Your task to perform on an android device: Go to notification settings Image 0: 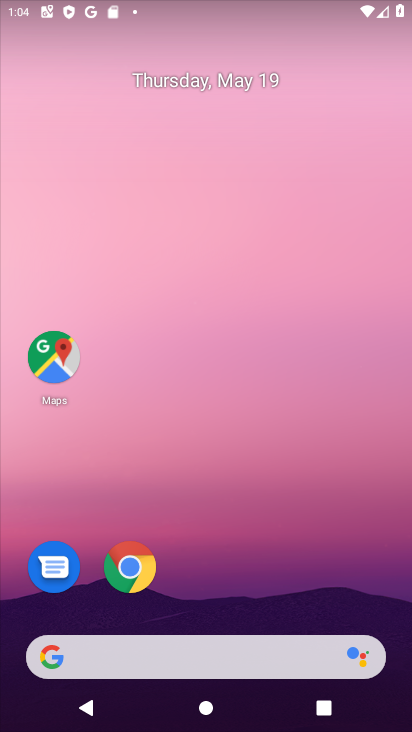
Step 0: drag from (314, 463) to (304, 82)
Your task to perform on an android device: Go to notification settings Image 1: 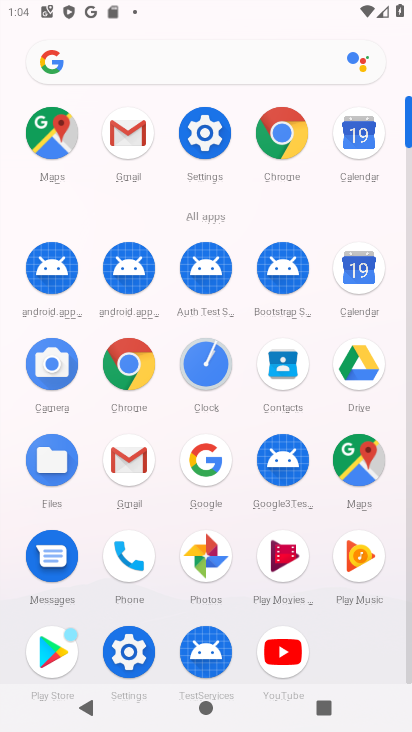
Step 1: click (196, 119)
Your task to perform on an android device: Go to notification settings Image 2: 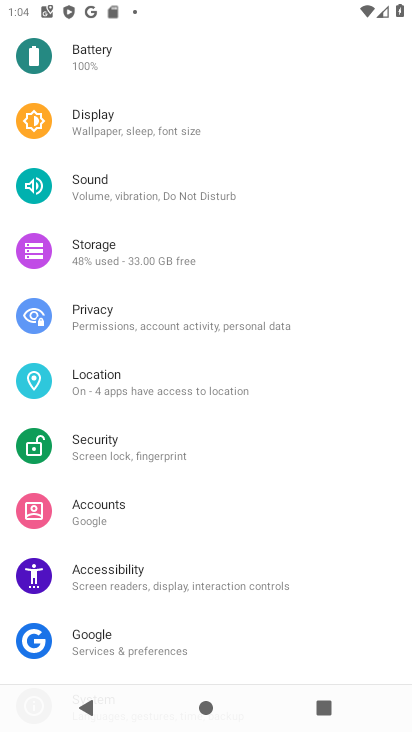
Step 2: drag from (261, 180) to (290, 717)
Your task to perform on an android device: Go to notification settings Image 3: 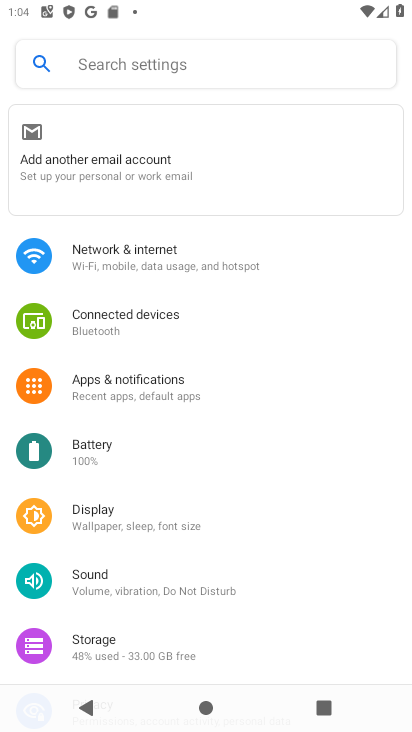
Step 3: click (177, 401)
Your task to perform on an android device: Go to notification settings Image 4: 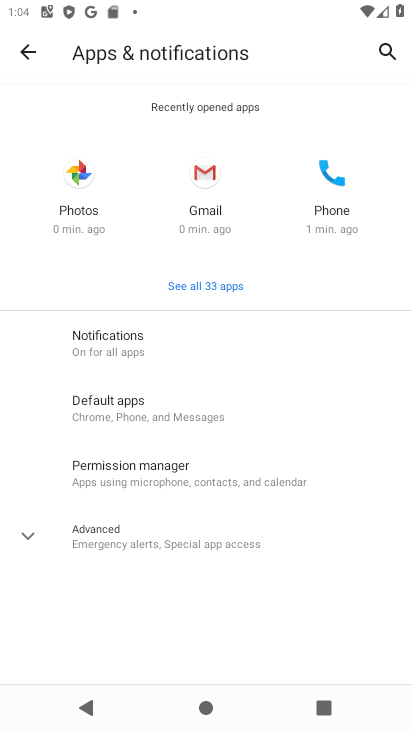
Step 4: click (114, 355)
Your task to perform on an android device: Go to notification settings Image 5: 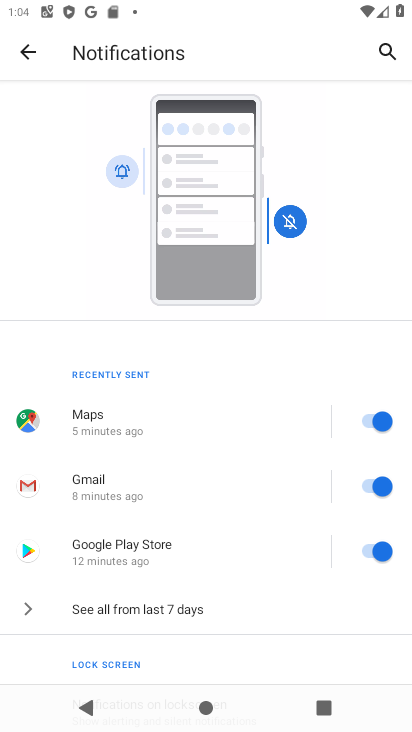
Step 5: task complete